Your task to perform on an android device: turn on showing notifications on the lock screen Image 0: 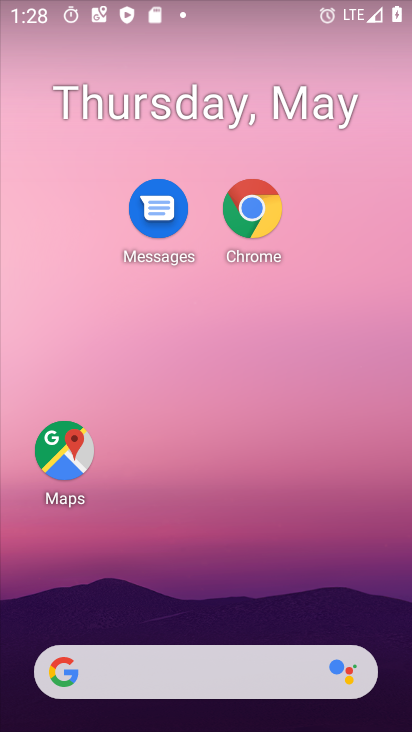
Step 0: drag from (232, 581) to (239, 70)
Your task to perform on an android device: turn on showing notifications on the lock screen Image 1: 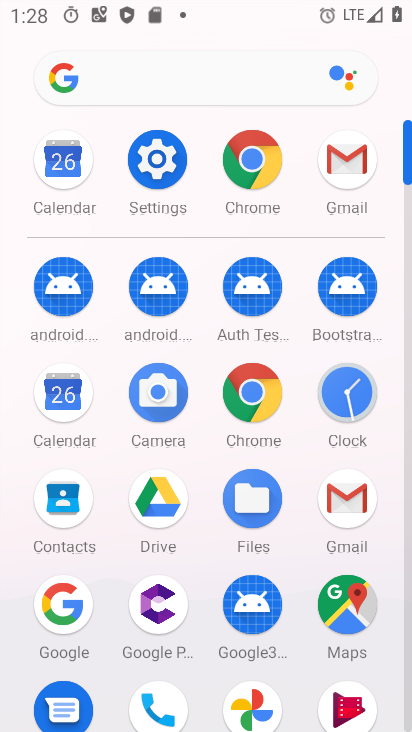
Step 1: click (156, 170)
Your task to perform on an android device: turn on showing notifications on the lock screen Image 2: 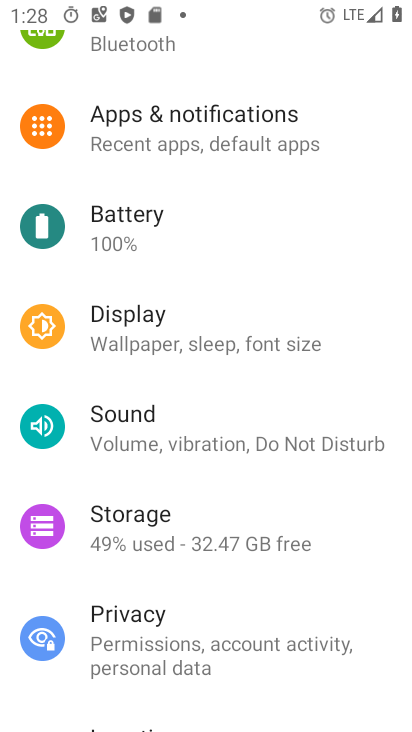
Step 2: click (130, 147)
Your task to perform on an android device: turn on showing notifications on the lock screen Image 3: 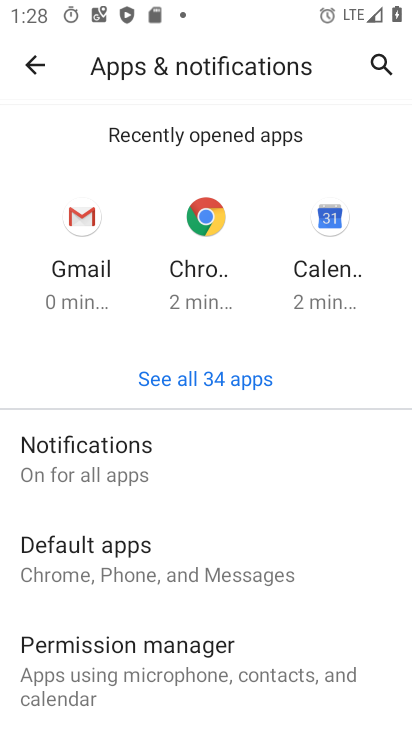
Step 3: click (110, 466)
Your task to perform on an android device: turn on showing notifications on the lock screen Image 4: 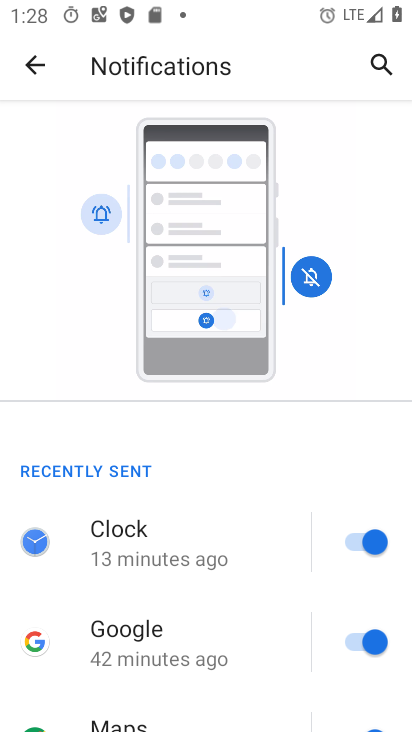
Step 4: drag from (210, 661) to (252, 303)
Your task to perform on an android device: turn on showing notifications on the lock screen Image 5: 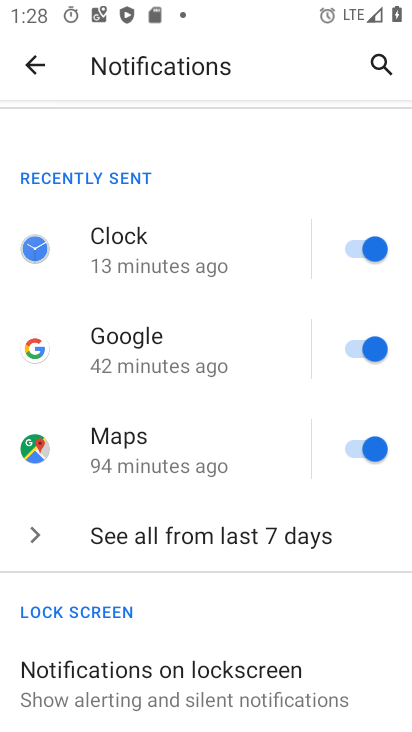
Step 5: click (233, 700)
Your task to perform on an android device: turn on showing notifications on the lock screen Image 6: 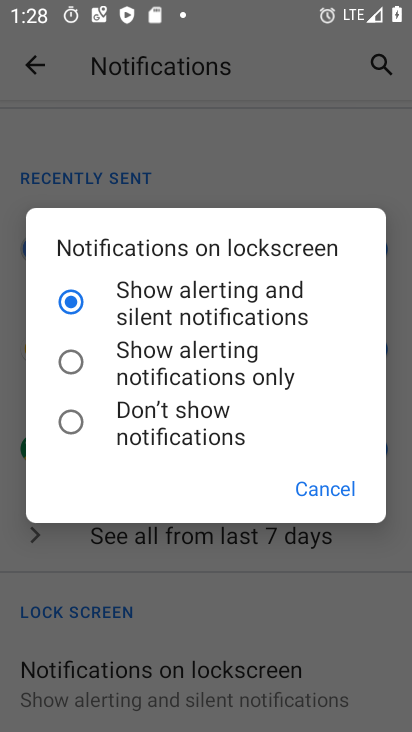
Step 6: click (66, 423)
Your task to perform on an android device: turn on showing notifications on the lock screen Image 7: 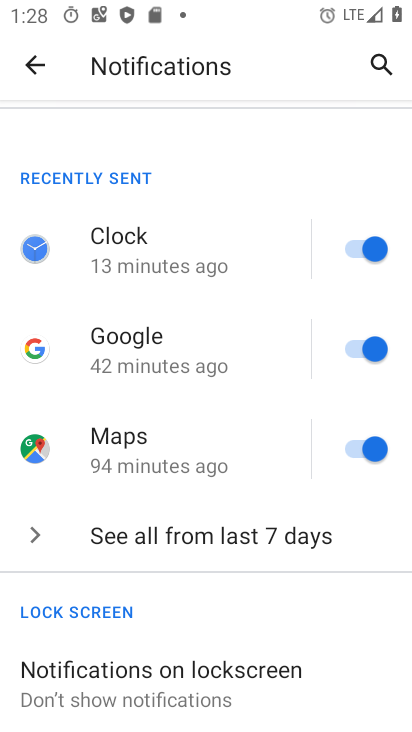
Step 7: task complete